Your task to perform on an android device: Open the calendar app, open the side menu, and click the "Day" option Image 0: 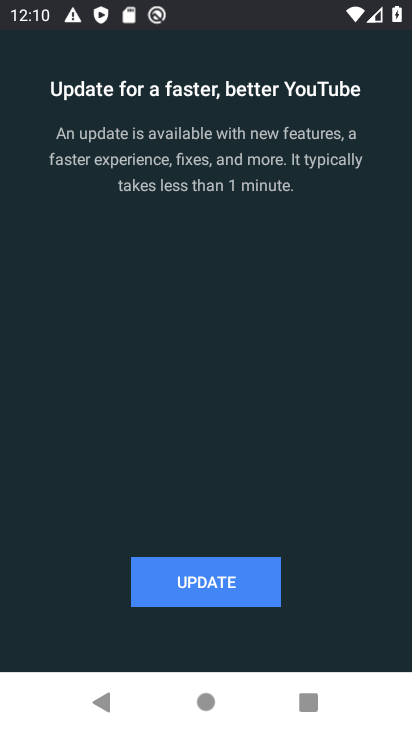
Step 0: task complete